Your task to perform on an android device: turn off priority inbox in the gmail app Image 0: 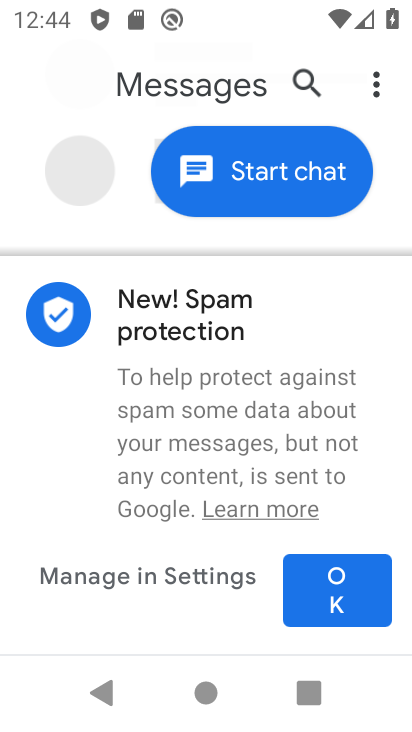
Step 0: press home button
Your task to perform on an android device: turn off priority inbox in the gmail app Image 1: 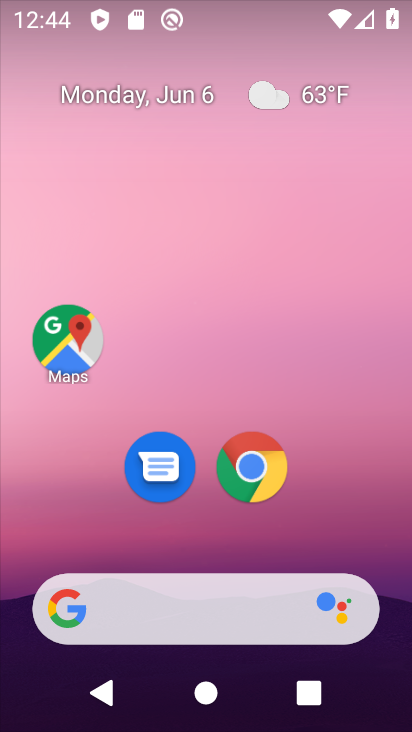
Step 1: drag from (395, 612) to (212, 41)
Your task to perform on an android device: turn off priority inbox in the gmail app Image 2: 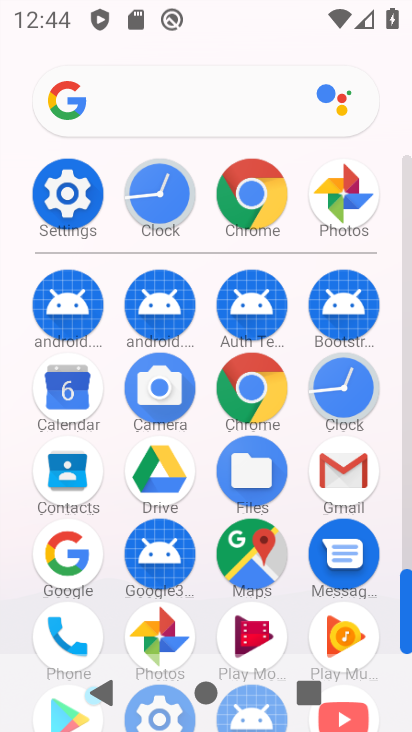
Step 2: click (350, 491)
Your task to perform on an android device: turn off priority inbox in the gmail app Image 3: 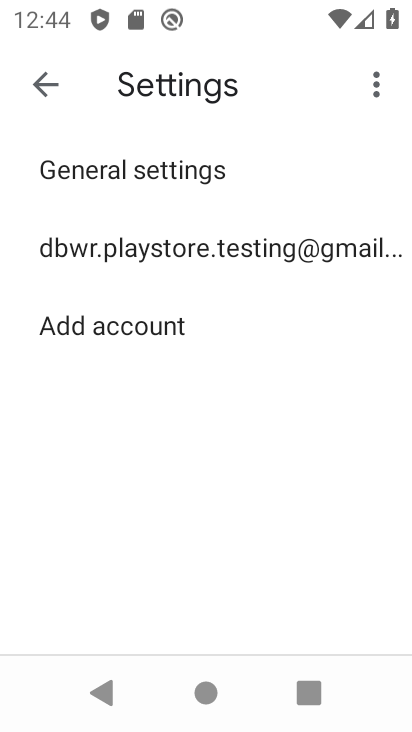
Step 3: click (106, 247)
Your task to perform on an android device: turn off priority inbox in the gmail app Image 4: 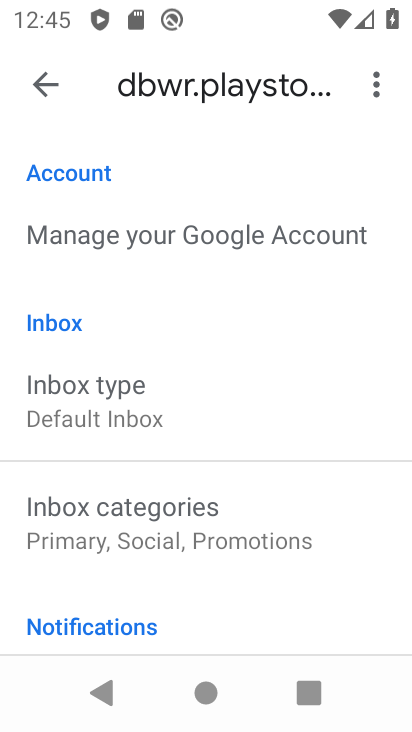
Step 4: click (149, 405)
Your task to perform on an android device: turn off priority inbox in the gmail app Image 5: 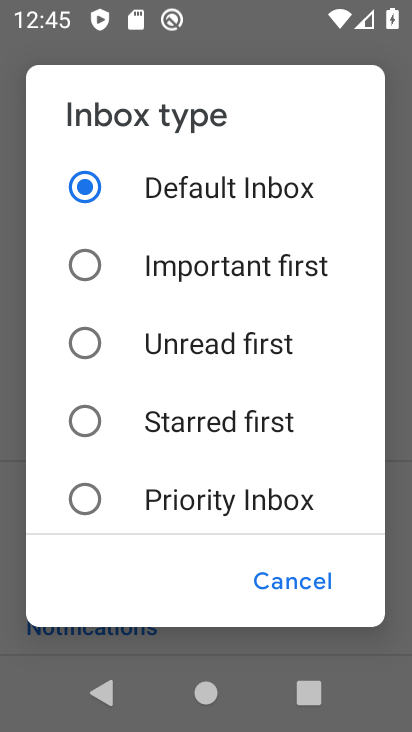
Step 5: task complete